Your task to perform on an android device: toggle airplane mode Image 0: 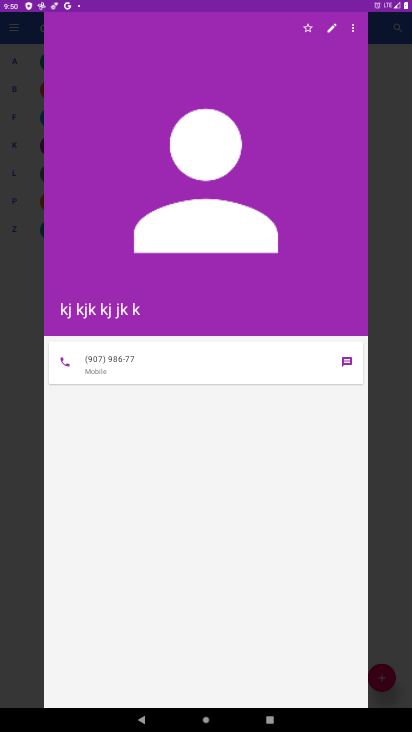
Step 0: press home button
Your task to perform on an android device: toggle airplane mode Image 1: 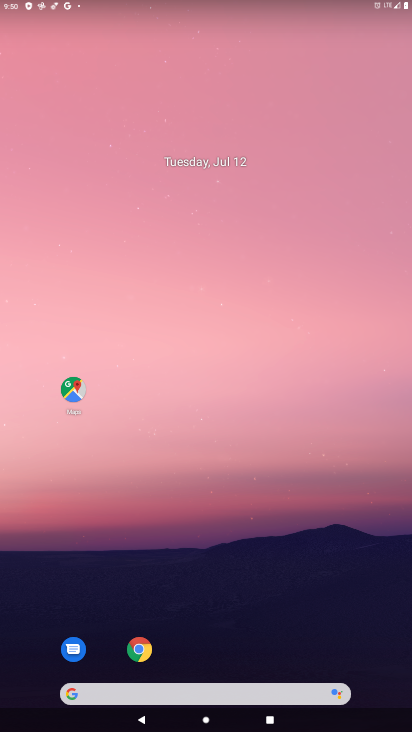
Step 1: drag from (230, 641) to (247, 150)
Your task to perform on an android device: toggle airplane mode Image 2: 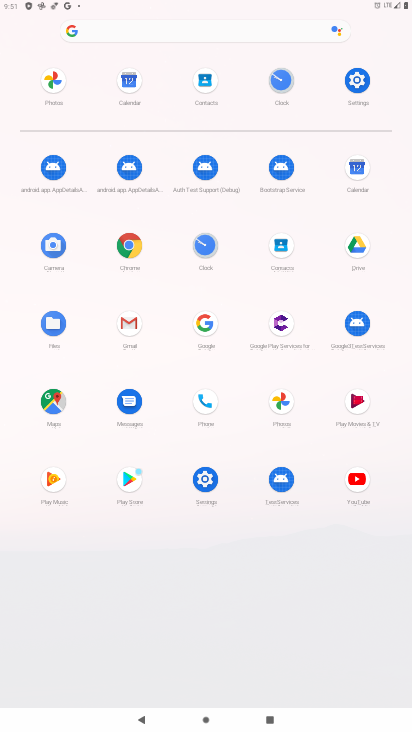
Step 2: click (381, 75)
Your task to perform on an android device: toggle airplane mode Image 3: 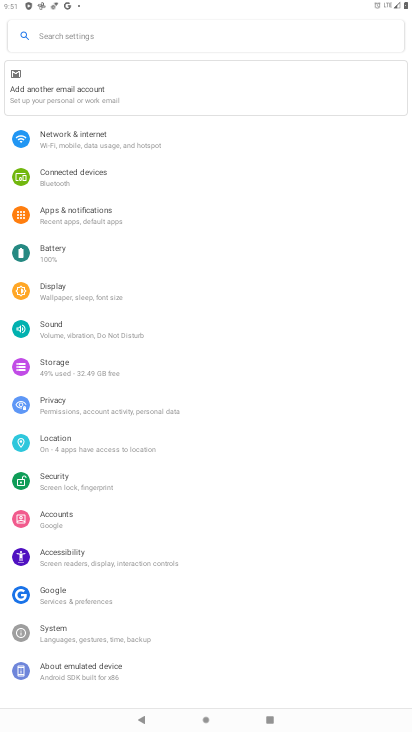
Step 3: click (190, 120)
Your task to perform on an android device: toggle airplane mode Image 4: 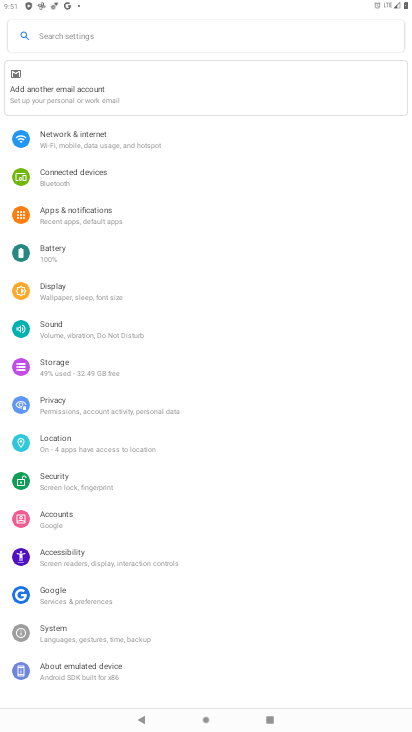
Step 4: click (159, 129)
Your task to perform on an android device: toggle airplane mode Image 5: 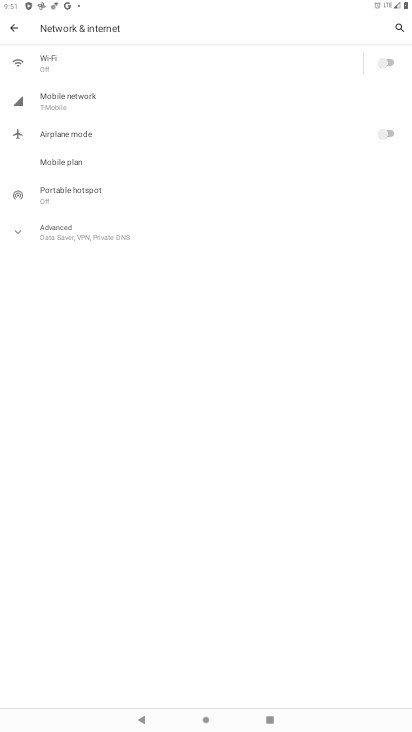
Step 5: task complete